Your task to perform on an android device: Go to internet settings Image 0: 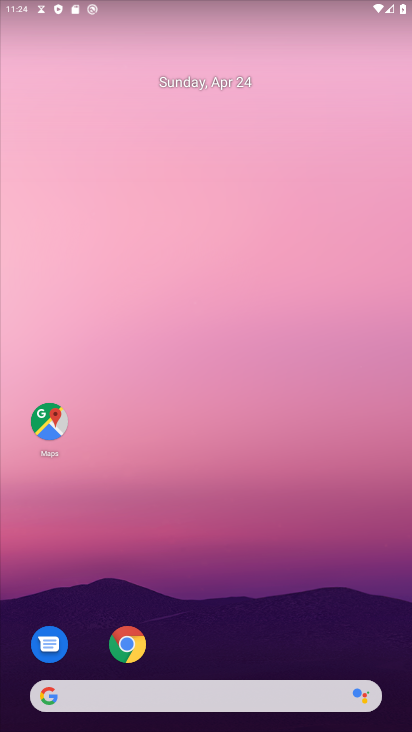
Step 0: drag from (351, 569) to (380, 62)
Your task to perform on an android device: Go to internet settings Image 1: 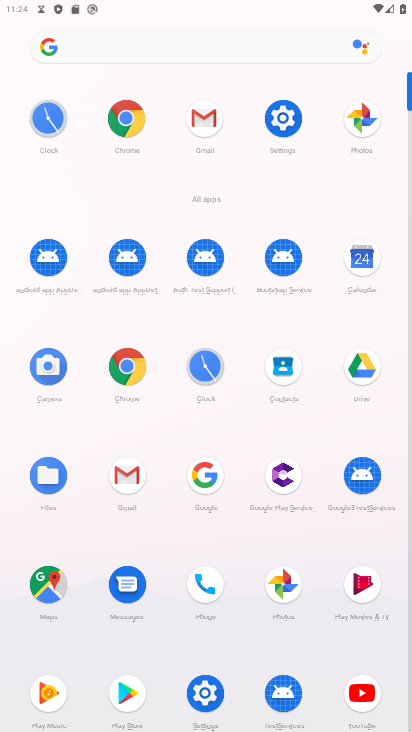
Step 1: click (285, 123)
Your task to perform on an android device: Go to internet settings Image 2: 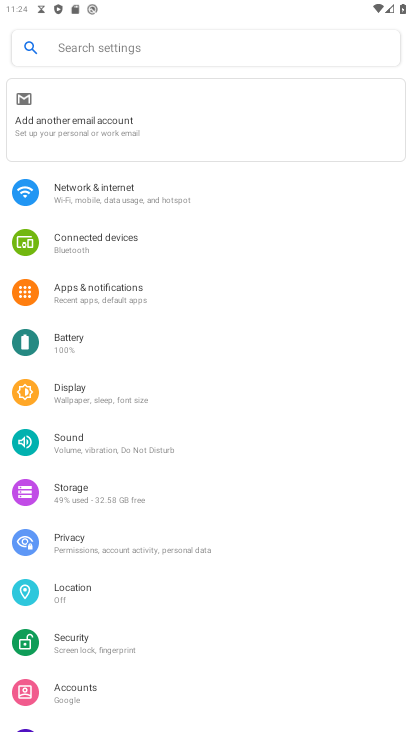
Step 2: click (94, 193)
Your task to perform on an android device: Go to internet settings Image 3: 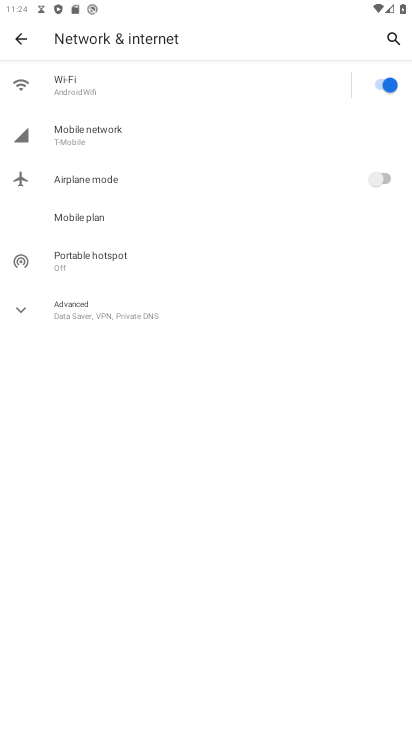
Step 3: task complete